Your task to perform on an android device: open device folders in google photos Image 0: 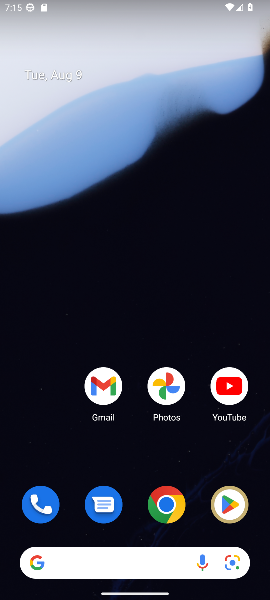
Step 0: press home button
Your task to perform on an android device: open device folders in google photos Image 1: 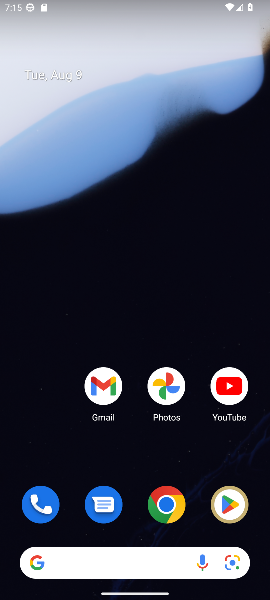
Step 1: drag from (208, 430) to (157, 128)
Your task to perform on an android device: open device folders in google photos Image 2: 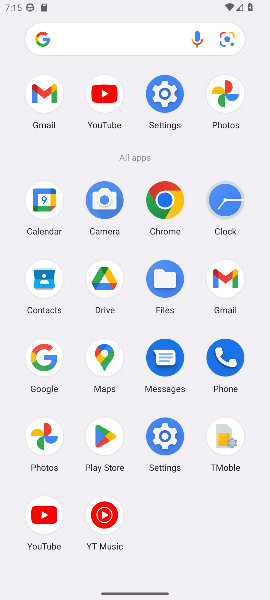
Step 2: click (32, 424)
Your task to perform on an android device: open device folders in google photos Image 3: 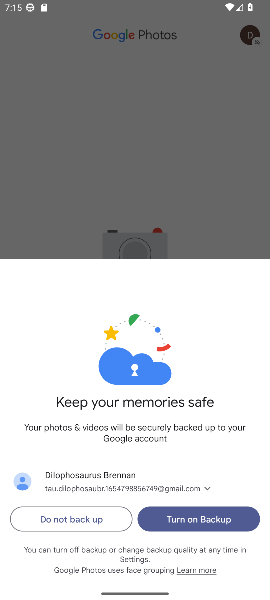
Step 3: click (85, 513)
Your task to perform on an android device: open device folders in google photos Image 4: 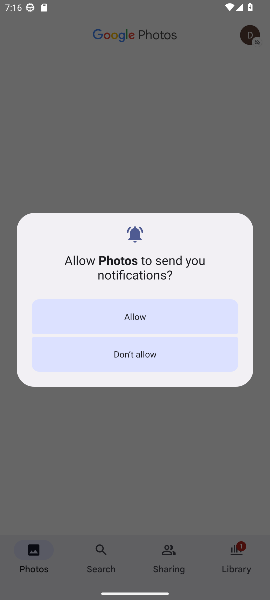
Step 4: click (136, 322)
Your task to perform on an android device: open device folders in google photos Image 5: 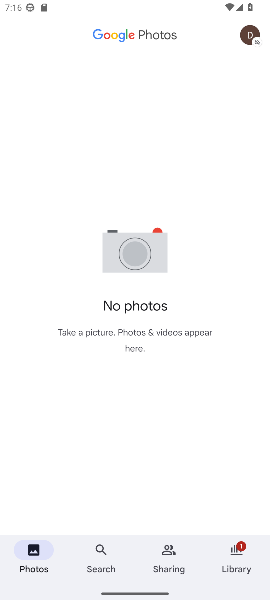
Step 5: task complete